Your task to perform on an android device: toggle show notifications on the lock screen Image 0: 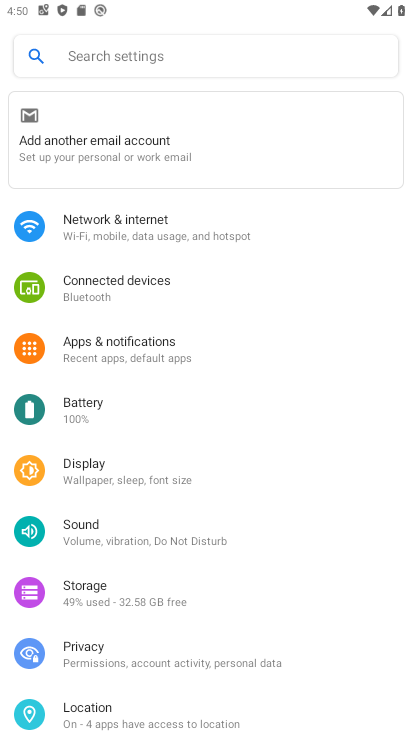
Step 0: drag from (243, 603) to (244, 245)
Your task to perform on an android device: toggle show notifications on the lock screen Image 1: 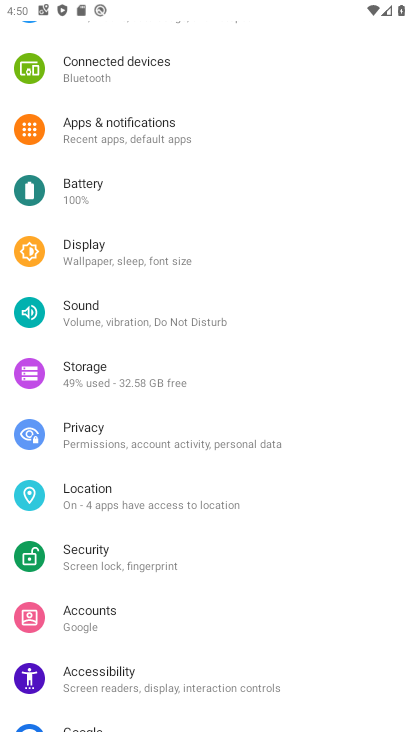
Step 1: drag from (207, 565) to (199, 61)
Your task to perform on an android device: toggle show notifications on the lock screen Image 2: 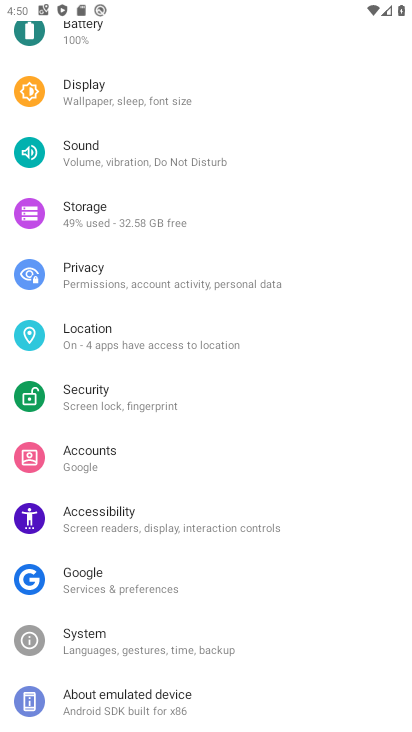
Step 2: drag from (229, 67) to (245, 508)
Your task to perform on an android device: toggle show notifications on the lock screen Image 3: 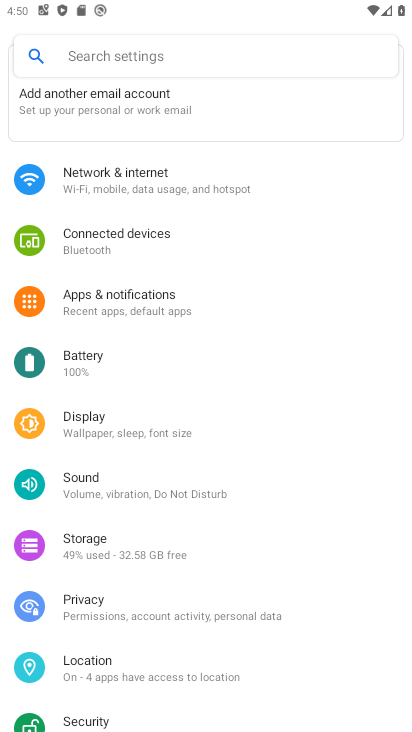
Step 3: drag from (224, 220) to (210, 551)
Your task to perform on an android device: toggle show notifications on the lock screen Image 4: 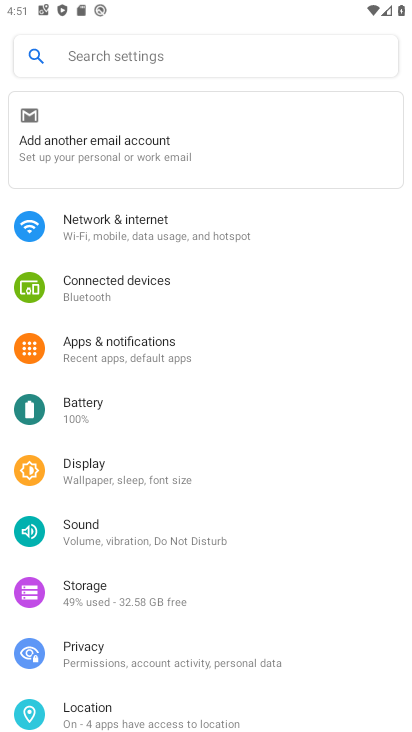
Step 4: click (137, 341)
Your task to perform on an android device: toggle show notifications on the lock screen Image 5: 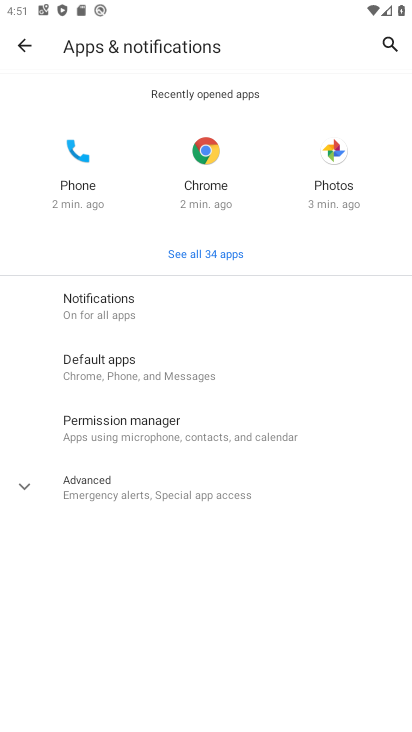
Step 5: click (24, 490)
Your task to perform on an android device: toggle show notifications on the lock screen Image 6: 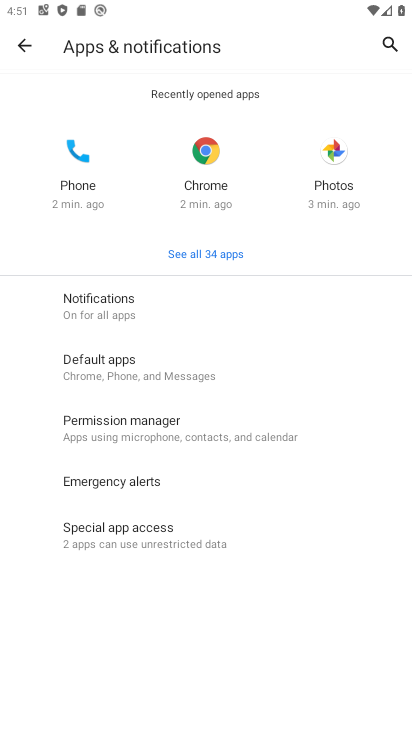
Step 6: click (147, 302)
Your task to perform on an android device: toggle show notifications on the lock screen Image 7: 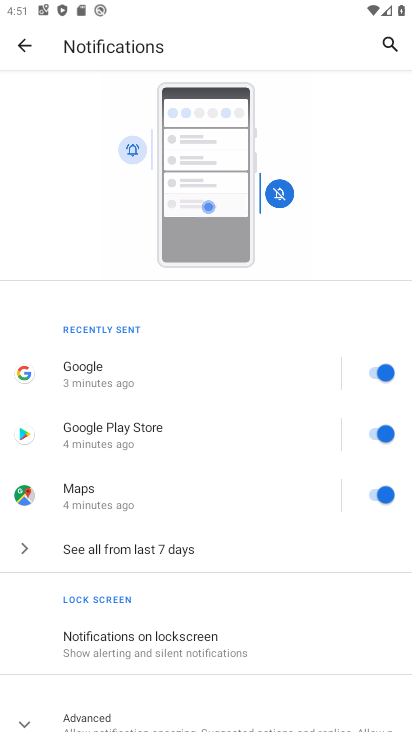
Step 7: drag from (234, 600) to (232, 213)
Your task to perform on an android device: toggle show notifications on the lock screen Image 8: 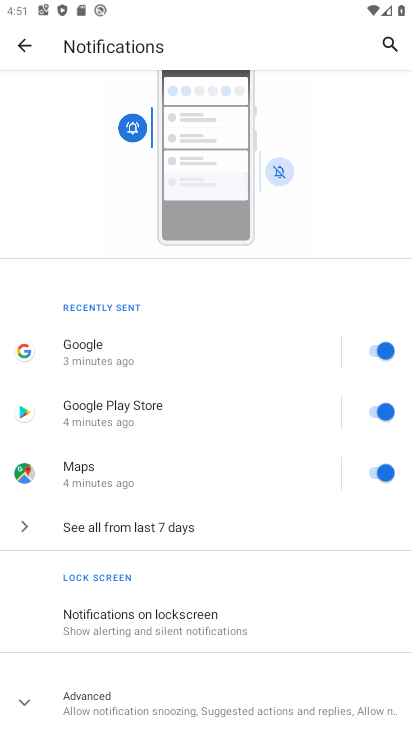
Step 8: click (106, 695)
Your task to perform on an android device: toggle show notifications on the lock screen Image 9: 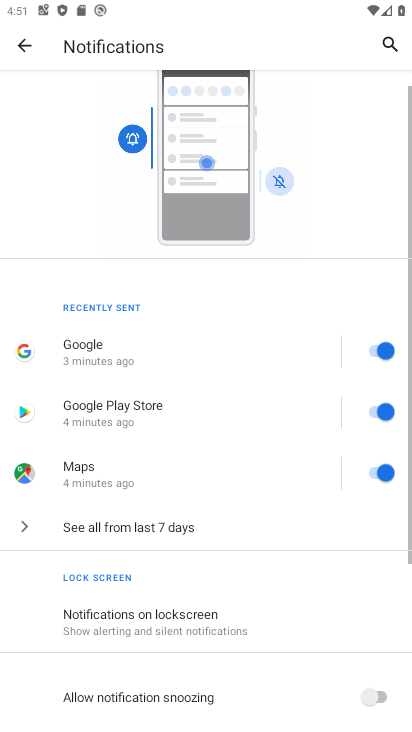
Step 9: drag from (225, 601) to (250, 262)
Your task to perform on an android device: toggle show notifications on the lock screen Image 10: 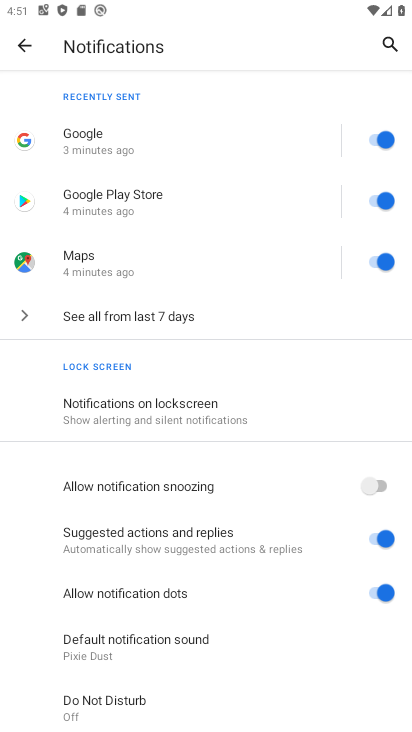
Step 10: drag from (248, 614) to (240, 234)
Your task to perform on an android device: toggle show notifications on the lock screen Image 11: 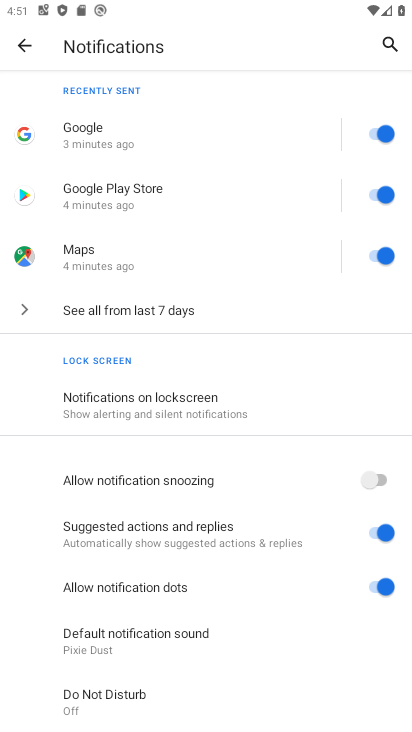
Step 11: drag from (246, 392) to (247, 630)
Your task to perform on an android device: toggle show notifications on the lock screen Image 12: 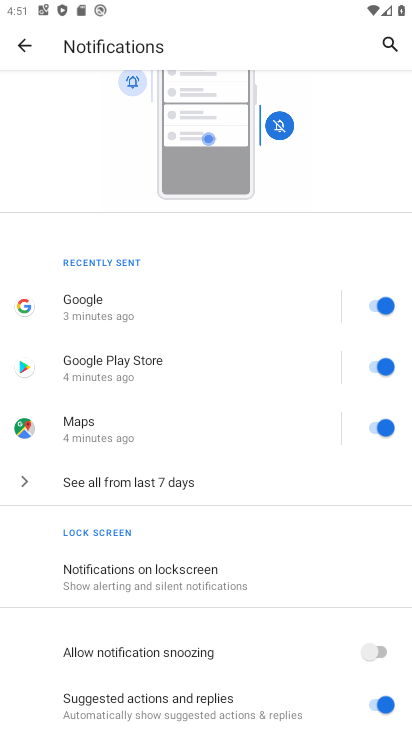
Step 12: drag from (237, 353) to (235, 595)
Your task to perform on an android device: toggle show notifications on the lock screen Image 13: 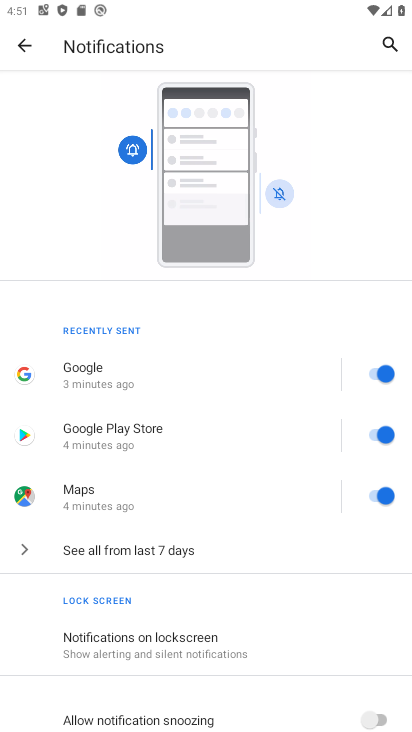
Step 13: click (18, 50)
Your task to perform on an android device: toggle show notifications on the lock screen Image 14: 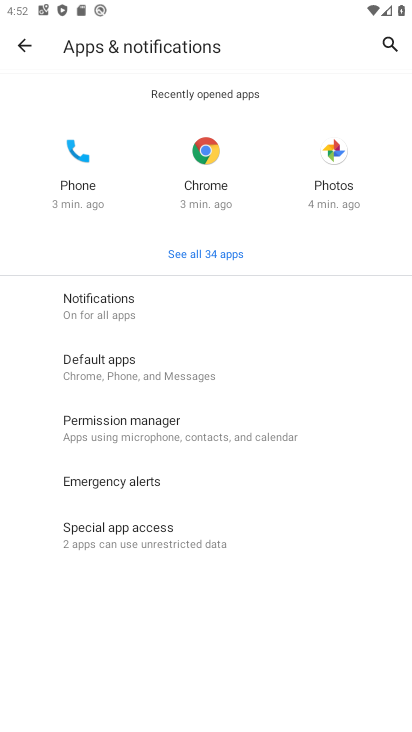
Step 14: click (169, 305)
Your task to perform on an android device: toggle show notifications on the lock screen Image 15: 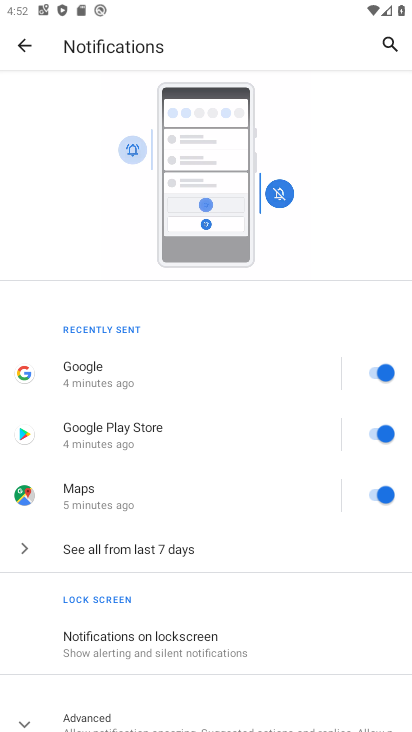
Step 15: click (201, 654)
Your task to perform on an android device: toggle show notifications on the lock screen Image 16: 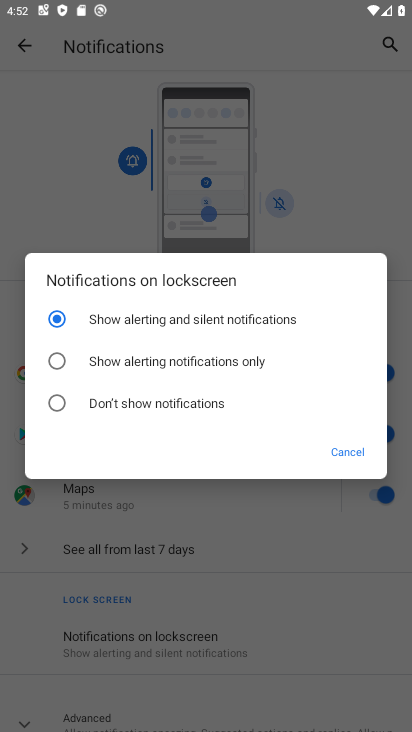
Step 16: click (175, 315)
Your task to perform on an android device: toggle show notifications on the lock screen Image 17: 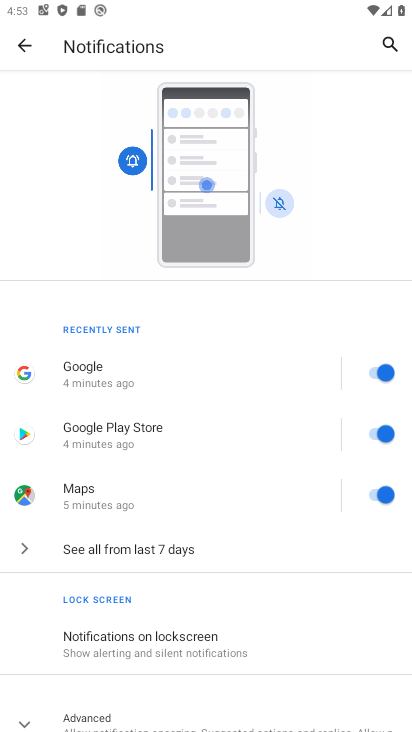
Step 17: task complete